Your task to perform on an android device: Search for Mexican restaurants on Maps Image 0: 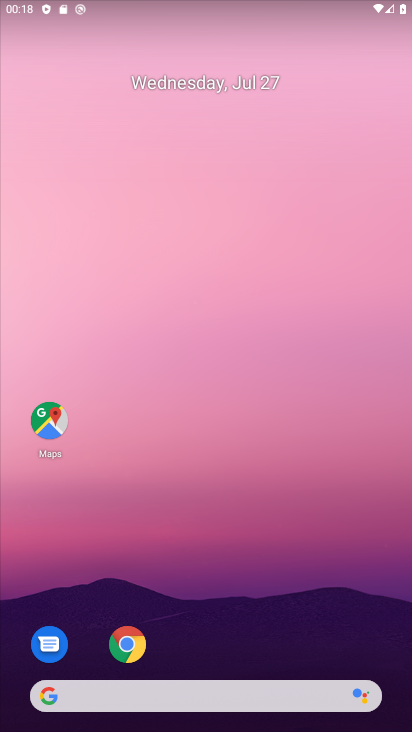
Step 0: drag from (300, 77) to (181, 212)
Your task to perform on an android device: Search for Mexican restaurants on Maps Image 1: 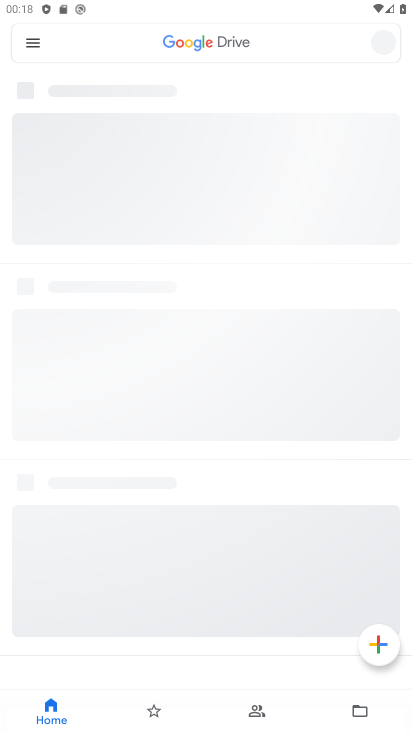
Step 1: drag from (260, 582) to (312, 49)
Your task to perform on an android device: Search for Mexican restaurants on Maps Image 2: 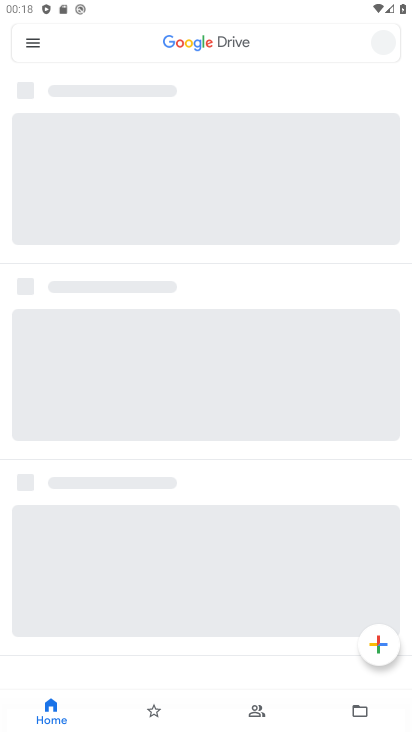
Step 2: drag from (288, 567) to (282, 253)
Your task to perform on an android device: Search for Mexican restaurants on Maps Image 3: 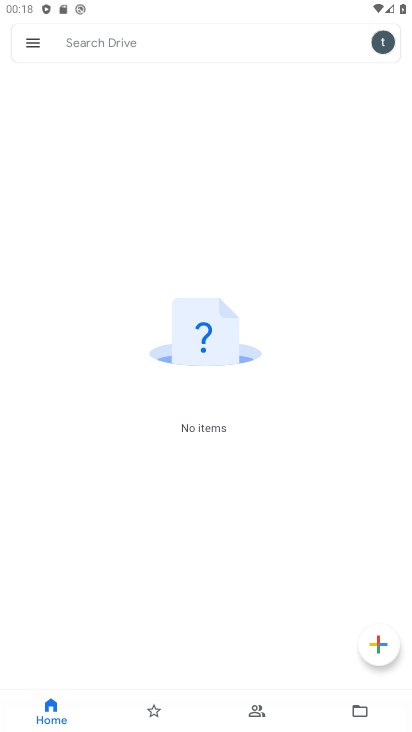
Step 3: press back button
Your task to perform on an android device: Search for Mexican restaurants on Maps Image 4: 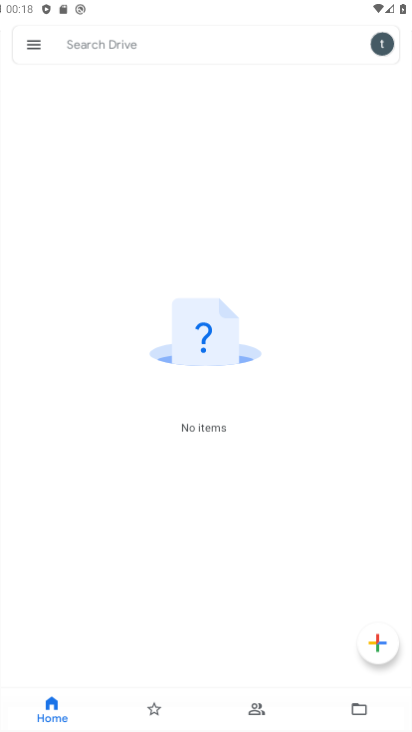
Step 4: press back button
Your task to perform on an android device: Search for Mexican restaurants on Maps Image 5: 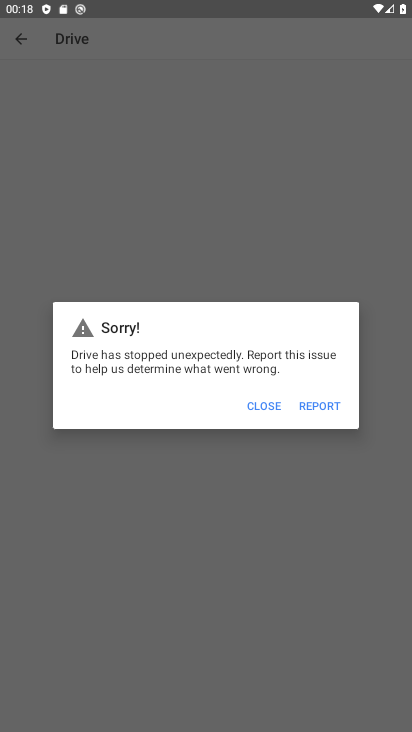
Step 5: click (272, 405)
Your task to perform on an android device: Search for Mexican restaurants on Maps Image 6: 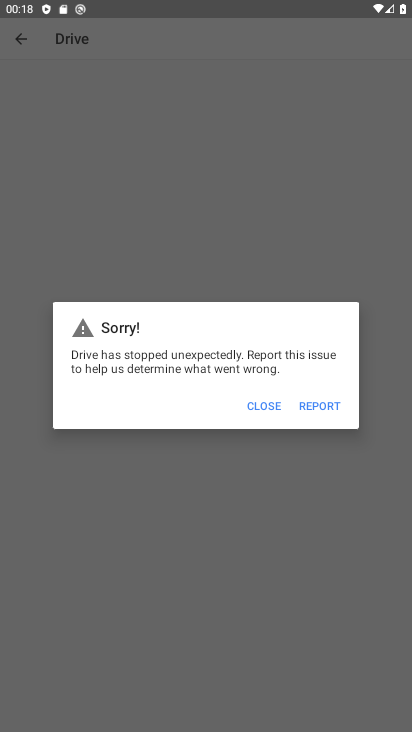
Step 6: click (269, 405)
Your task to perform on an android device: Search for Mexican restaurants on Maps Image 7: 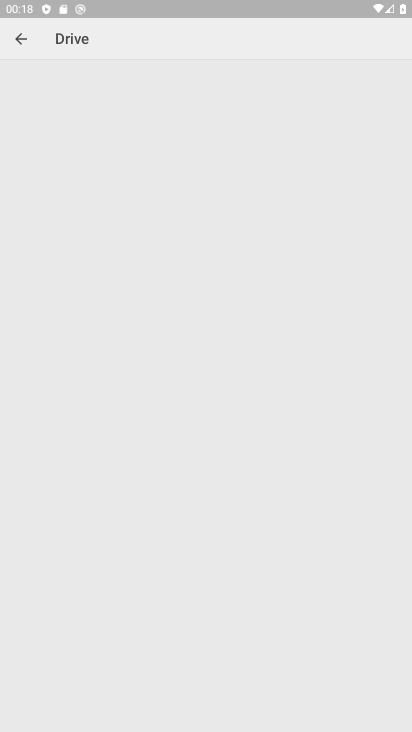
Step 7: click (269, 405)
Your task to perform on an android device: Search for Mexican restaurants on Maps Image 8: 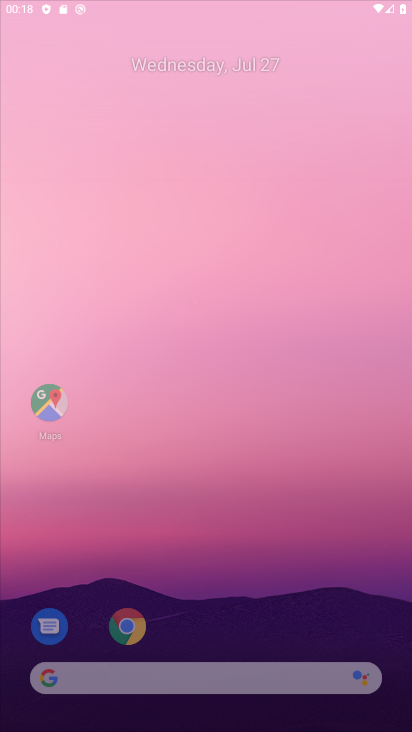
Step 8: click (269, 405)
Your task to perform on an android device: Search for Mexican restaurants on Maps Image 9: 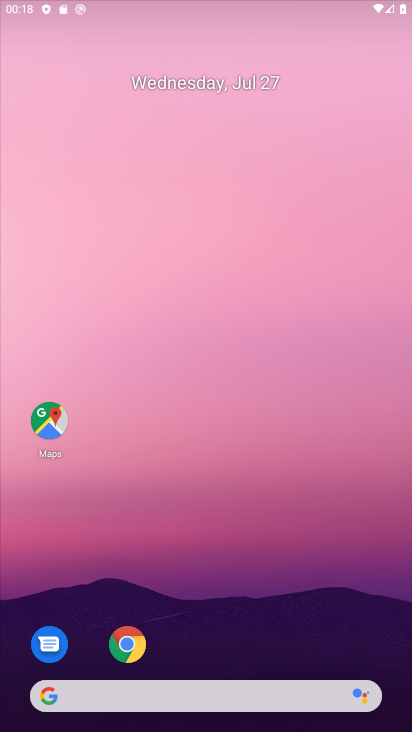
Step 9: drag from (184, 611) to (278, 23)
Your task to perform on an android device: Search for Mexican restaurants on Maps Image 10: 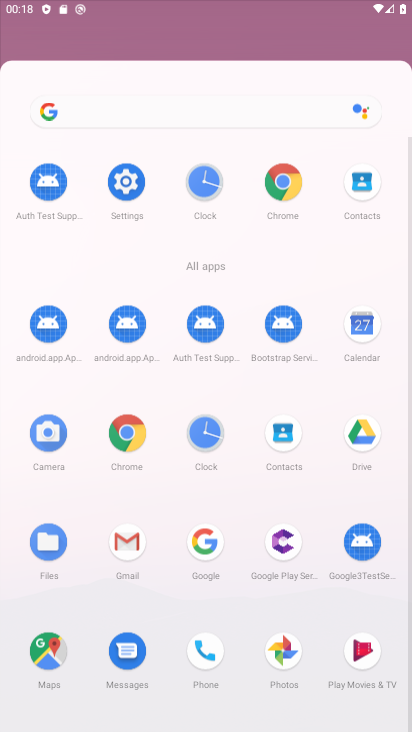
Step 10: drag from (275, 444) to (289, 57)
Your task to perform on an android device: Search for Mexican restaurants on Maps Image 11: 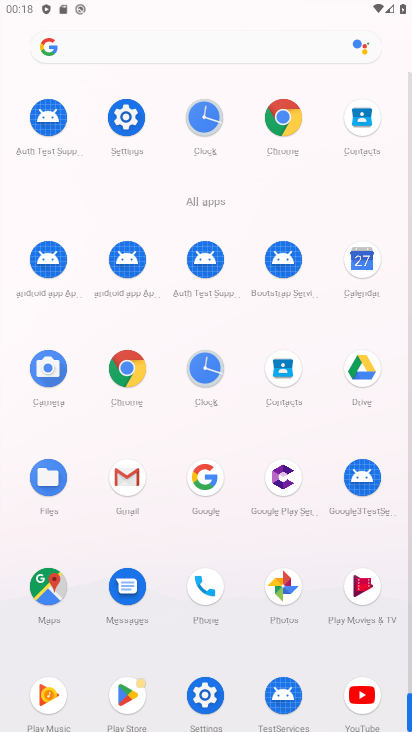
Step 11: click (54, 588)
Your task to perform on an android device: Search for Mexican restaurants on Maps Image 12: 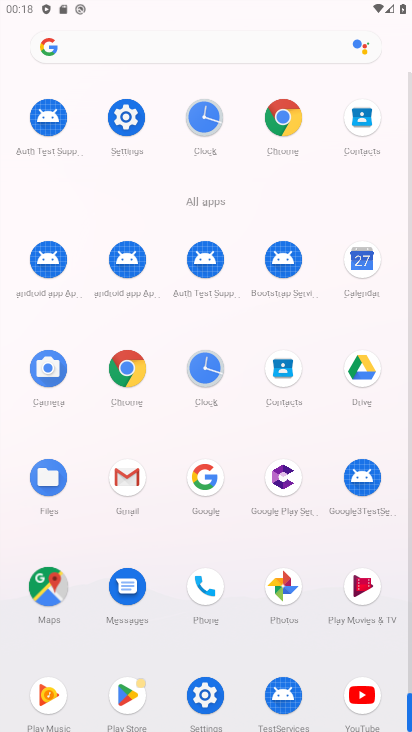
Step 12: click (54, 588)
Your task to perform on an android device: Search for Mexican restaurants on Maps Image 13: 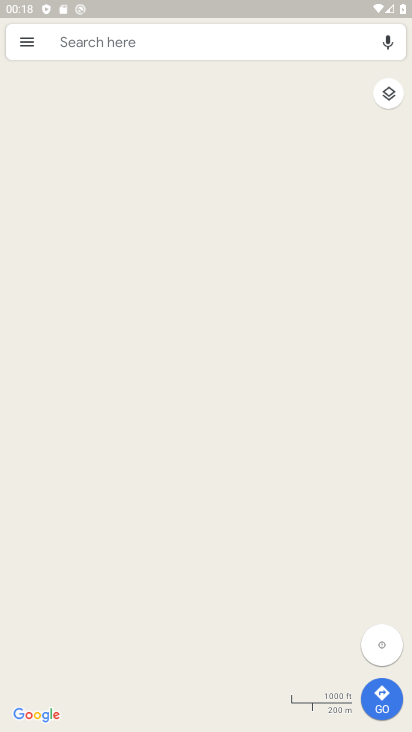
Step 13: click (77, 50)
Your task to perform on an android device: Search for Mexican restaurants on Maps Image 14: 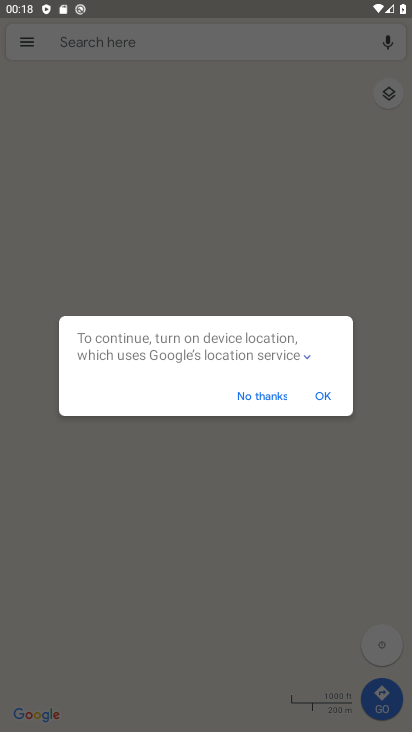
Step 14: click (76, 47)
Your task to perform on an android device: Search for Mexican restaurants on Maps Image 15: 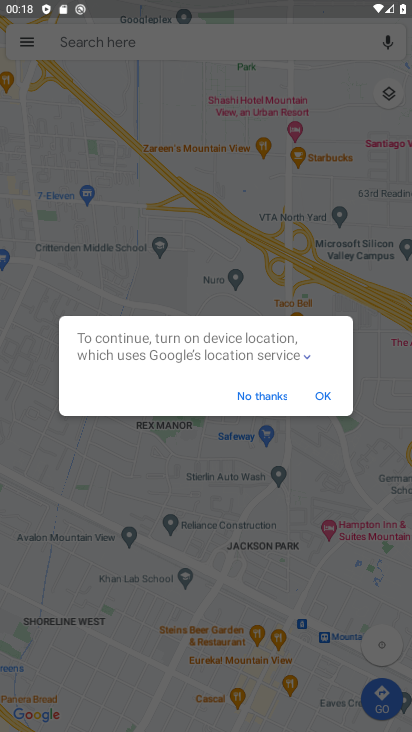
Step 15: click (329, 402)
Your task to perform on an android device: Search for Mexican restaurants on Maps Image 16: 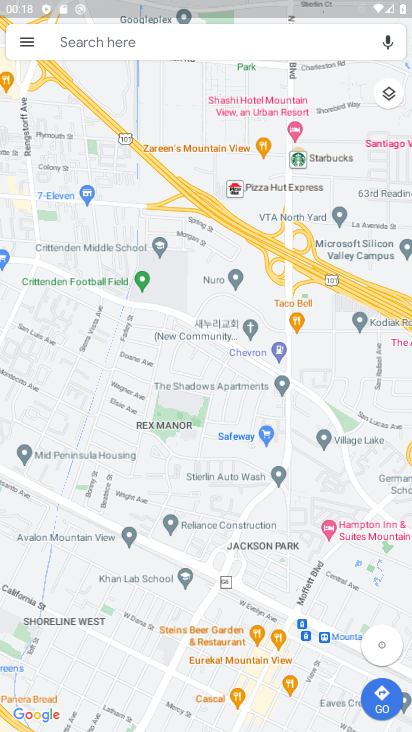
Step 16: click (82, 44)
Your task to perform on an android device: Search for Mexican restaurants on Maps Image 17: 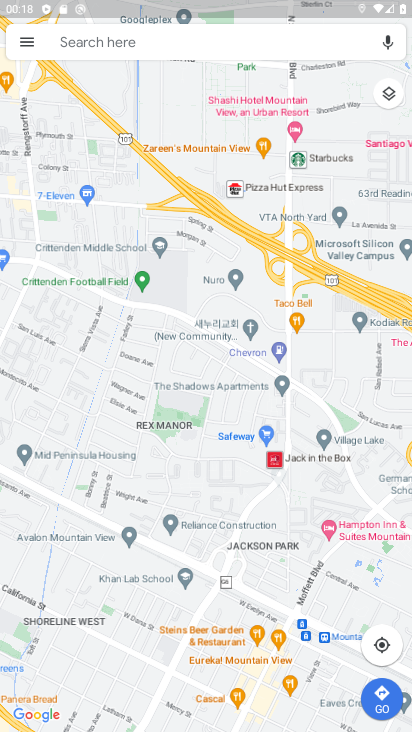
Step 17: click (80, 44)
Your task to perform on an android device: Search for Mexican restaurants on Maps Image 18: 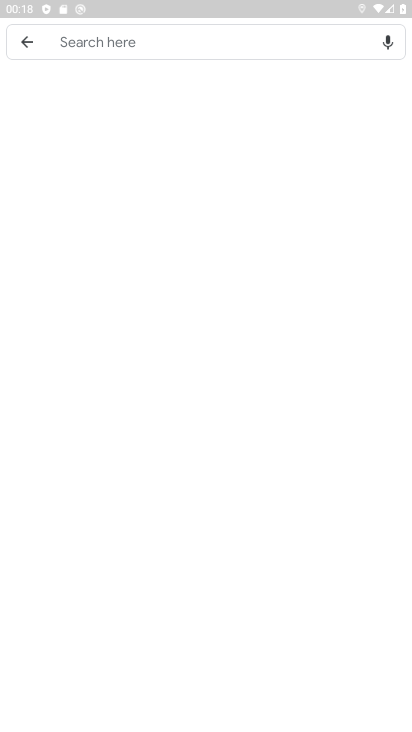
Step 18: click (82, 42)
Your task to perform on an android device: Search for Mexican restaurants on Maps Image 19: 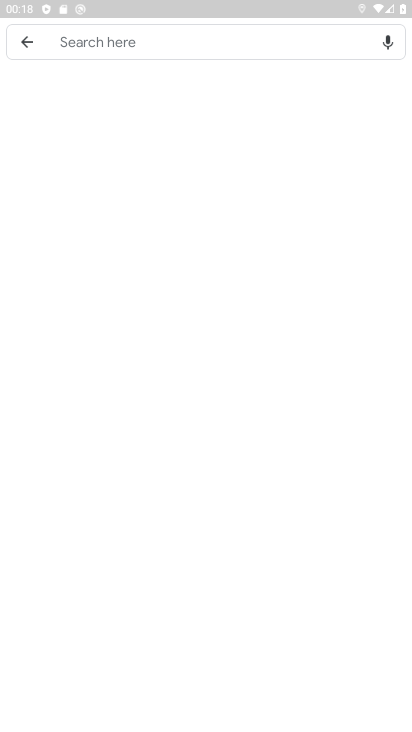
Step 19: click (82, 39)
Your task to perform on an android device: Search for Mexican restaurants on Maps Image 20: 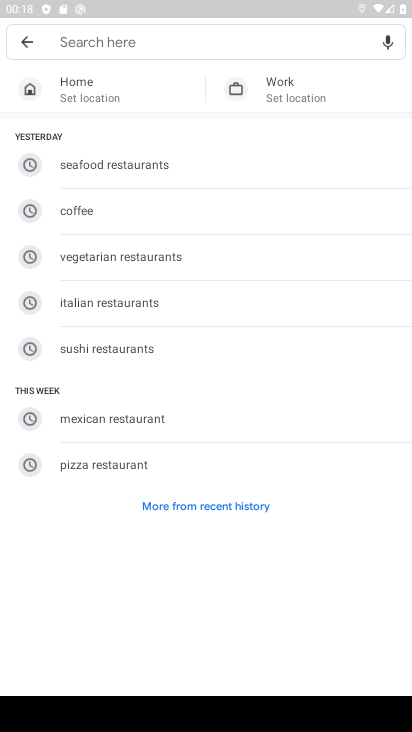
Step 20: click (78, 37)
Your task to perform on an android device: Search for Mexican restaurants on Maps Image 21: 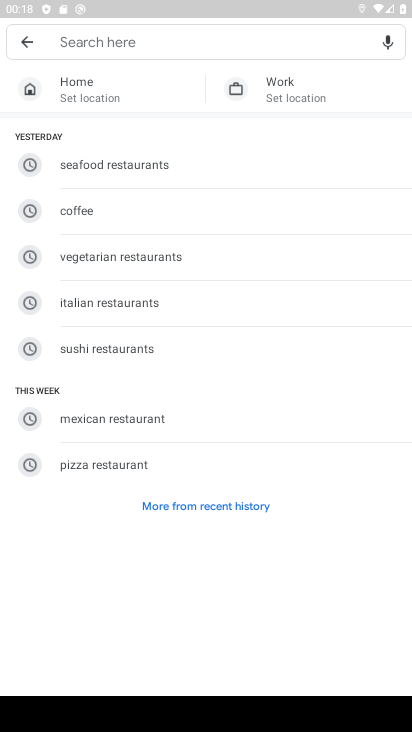
Step 21: click (143, 407)
Your task to perform on an android device: Search for Mexican restaurants on Maps Image 22: 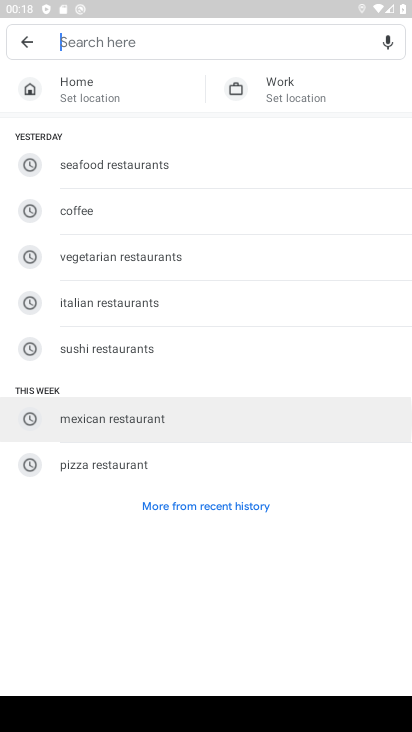
Step 22: click (145, 410)
Your task to perform on an android device: Search for Mexican restaurants on Maps Image 23: 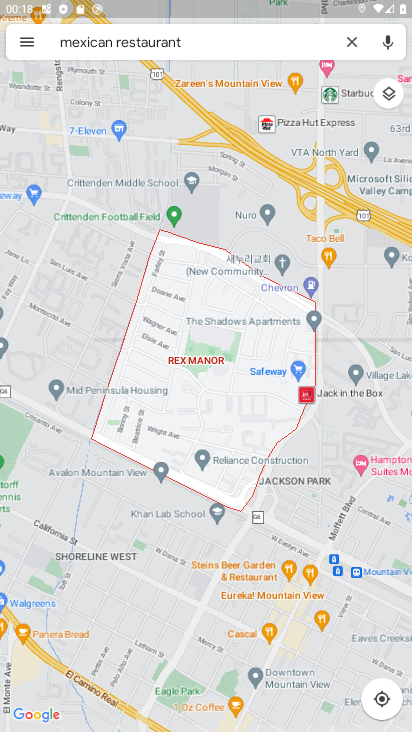
Step 23: task complete